Your task to perform on an android device: Open the calendar app, open the side menu, and click the "Day" option Image 0: 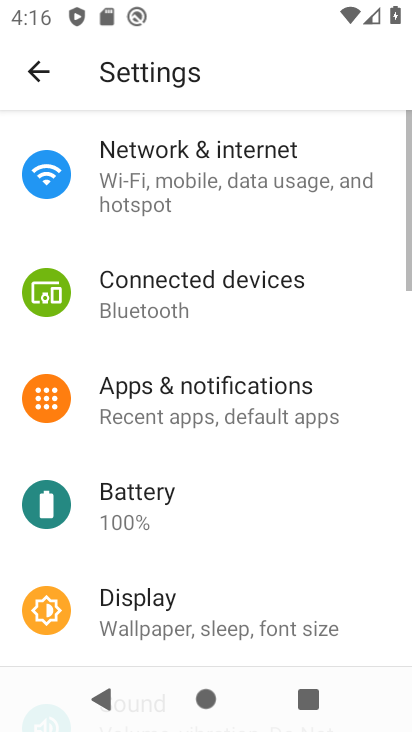
Step 0: press home button
Your task to perform on an android device: Open the calendar app, open the side menu, and click the "Day" option Image 1: 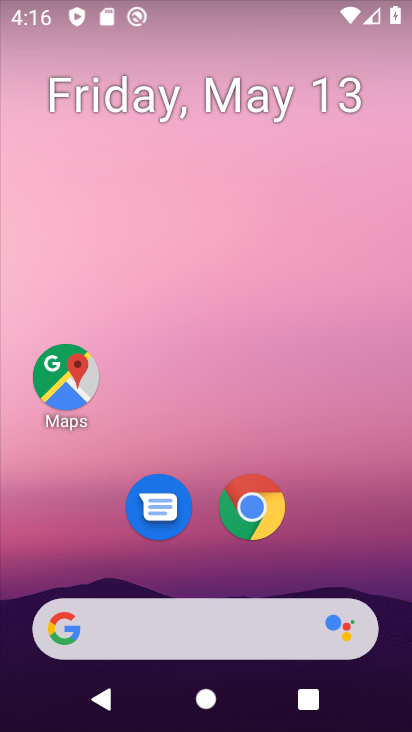
Step 1: drag from (335, 543) to (243, 22)
Your task to perform on an android device: Open the calendar app, open the side menu, and click the "Day" option Image 2: 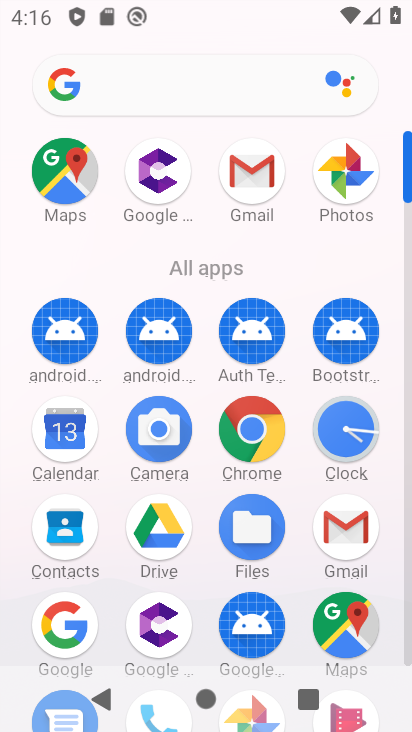
Step 2: click (71, 432)
Your task to perform on an android device: Open the calendar app, open the side menu, and click the "Day" option Image 3: 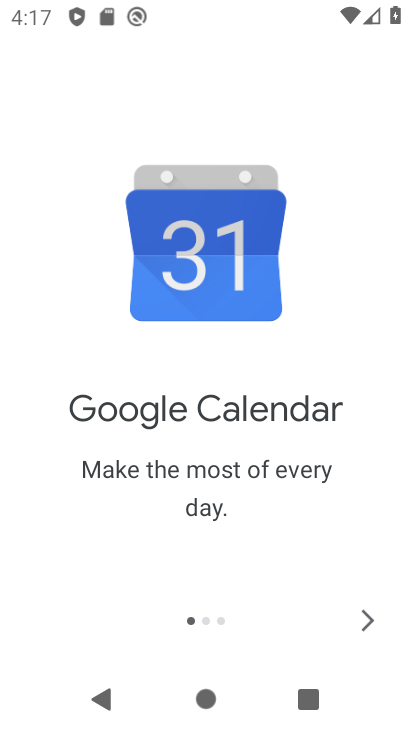
Step 3: click (359, 618)
Your task to perform on an android device: Open the calendar app, open the side menu, and click the "Day" option Image 4: 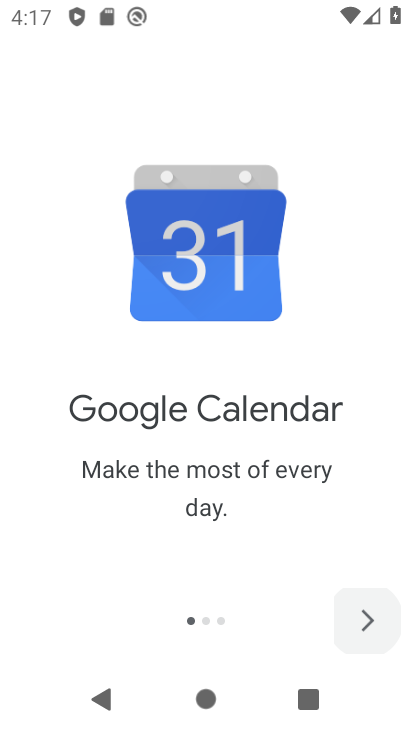
Step 4: click (359, 618)
Your task to perform on an android device: Open the calendar app, open the side menu, and click the "Day" option Image 5: 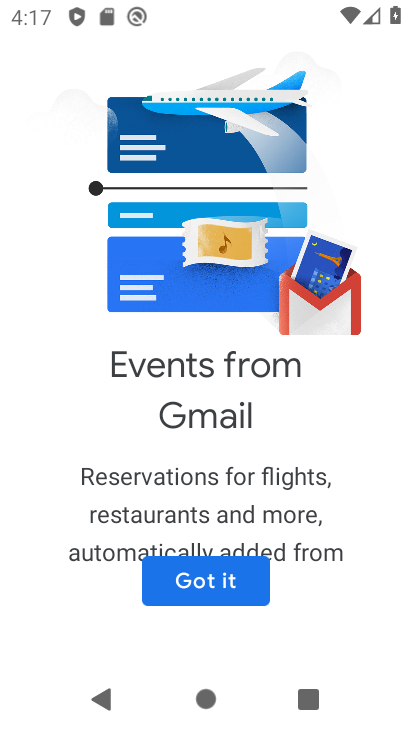
Step 5: click (208, 583)
Your task to perform on an android device: Open the calendar app, open the side menu, and click the "Day" option Image 6: 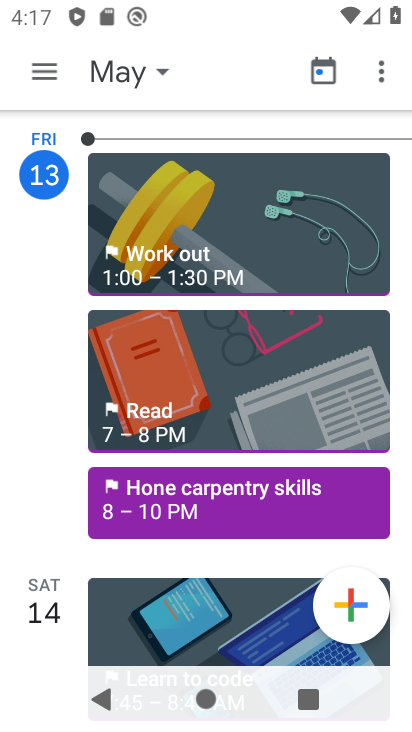
Step 6: click (34, 67)
Your task to perform on an android device: Open the calendar app, open the side menu, and click the "Day" option Image 7: 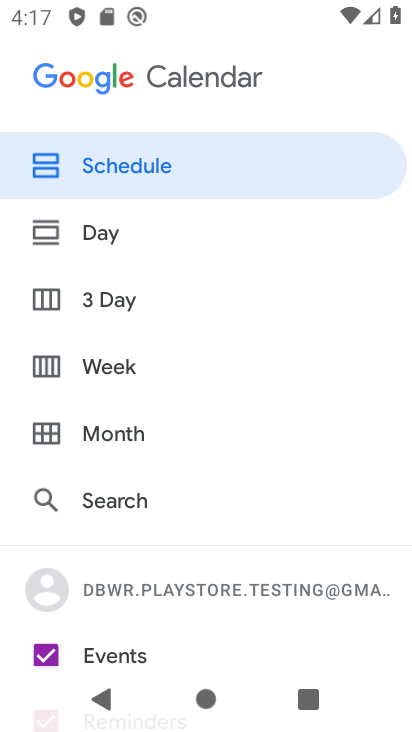
Step 7: click (119, 238)
Your task to perform on an android device: Open the calendar app, open the side menu, and click the "Day" option Image 8: 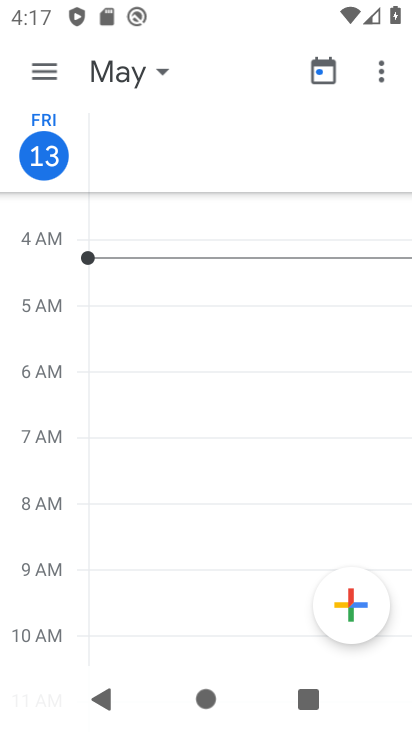
Step 8: task complete